Your task to perform on an android device: Open Youtube and go to the subscriptions tab Image 0: 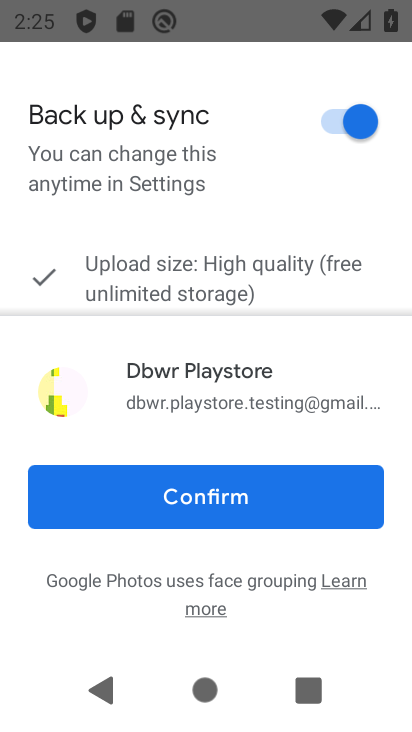
Step 0: press home button
Your task to perform on an android device: Open Youtube and go to the subscriptions tab Image 1: 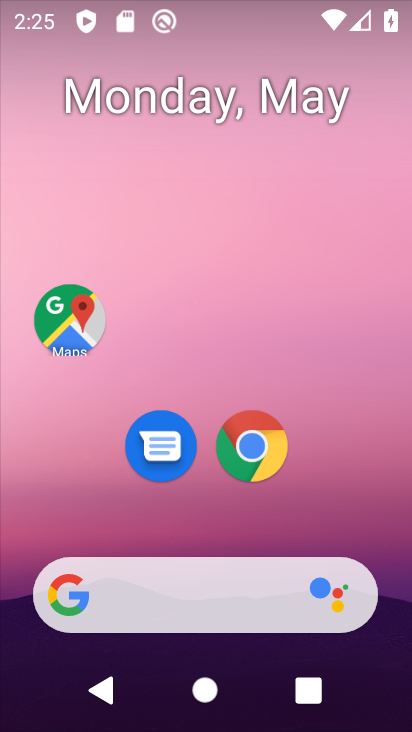
Step 1: drag from (250, 529) to (285, 67)
Your task to perform on an android device: Open Youtube and go to the subscriptions tab Image 2: 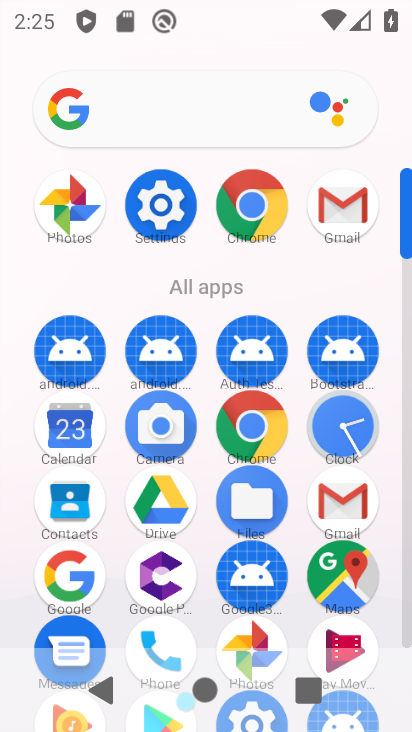
Step 2: drag from (195, 611) to (221, 132)
Your task to perform on an android device: Open Youtube and go to the subscriptions tab Image 3: 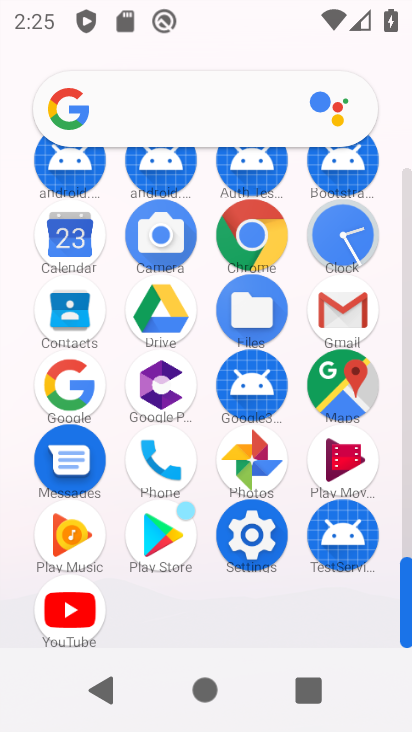
Step 3: click (56, 594)
Your task to perform on an android device: Open Youtube and go to the subscriptions tab Image 4: 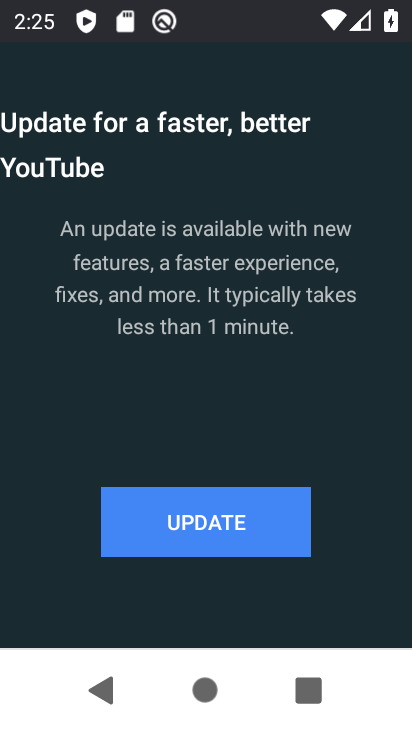
Step 4: click (218, 543)
Your task to perform on an android device: Open Youtube and go to the subscriptions tab Image 5: 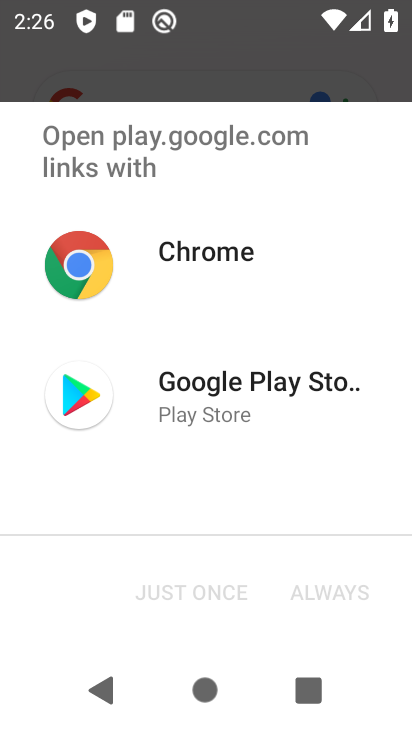
Step 5: click (154, 418)
Your task to perform on an android device: Open Youtube and go to the subscriptions tab Image 6: 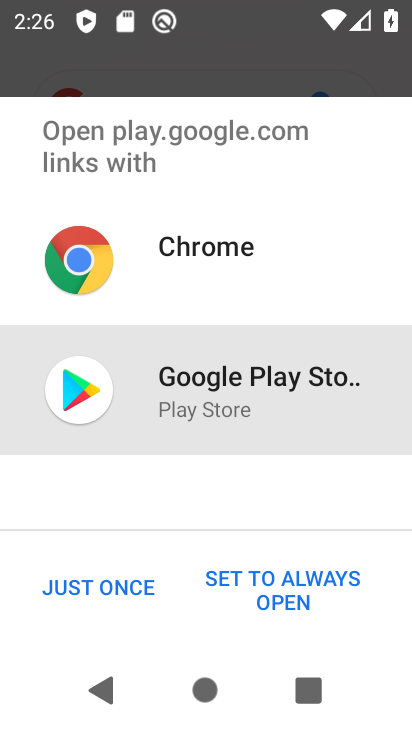
Step 6: click (97, 578)
Your task to perform on an android device: Open Youtube and go to the subscriptions tab Image 7: 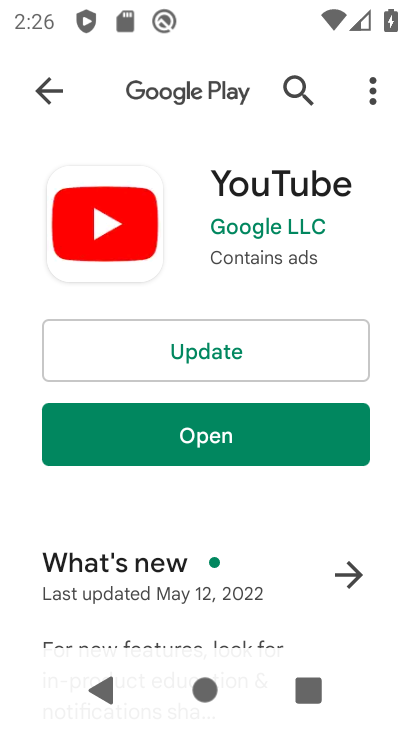
Step 7: click (200, 371)
Your task to perform on an android device: Open Youtube and go to the subscriptions tab Image 8: 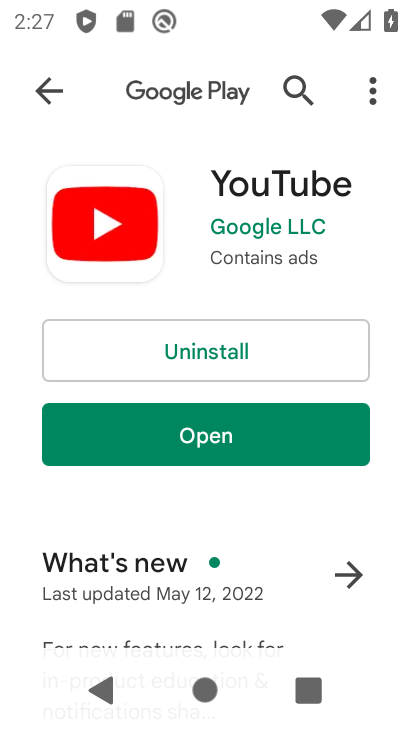
Step 8: click (145, 465)
Your task to perform on an android device: Open Youtube and go to the subscriptions tab Image 9: 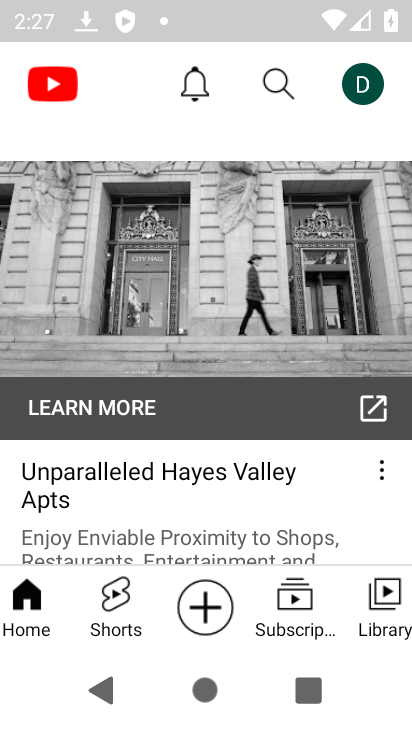
Step 9: click (302, 602)
Your task to perform on an android device: Open Youtube and go to the subscriptions tab Image 10: 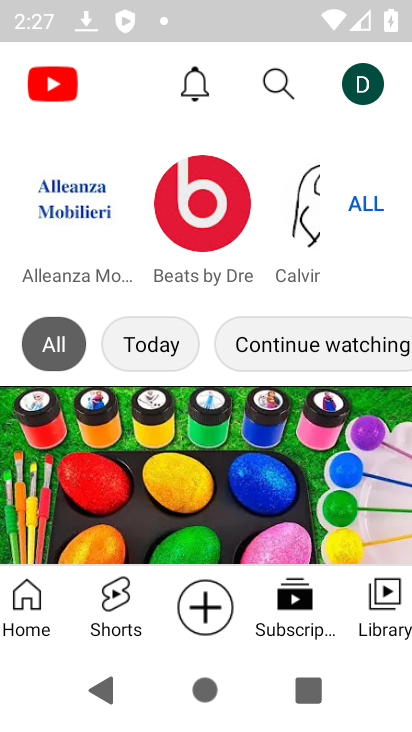
Step 10: task complete